Your task to perform on an android device: change your default location settings in chrome Image 0: 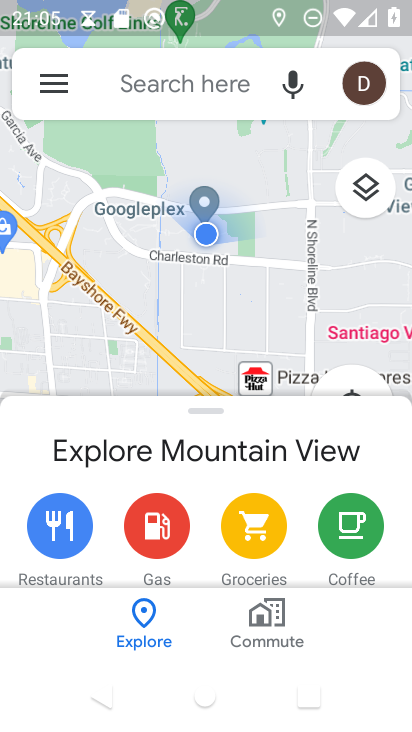
Step 0: press home button
Your task to perform on an android device: change your default location settings in chrome Image 1: 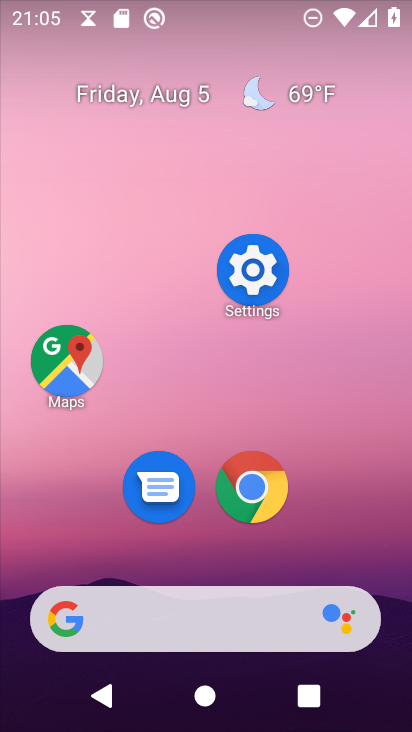
Step 1: click (252, 490)
Your task to perform on an android device: change your default location settings in chrome Image 2: 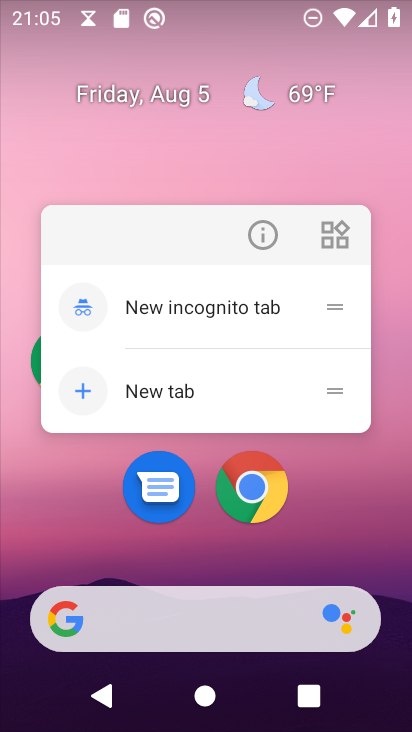
Step 2: click (247, 497)
Your task to perform on an android device: change your default location settings in chrome Image 3: 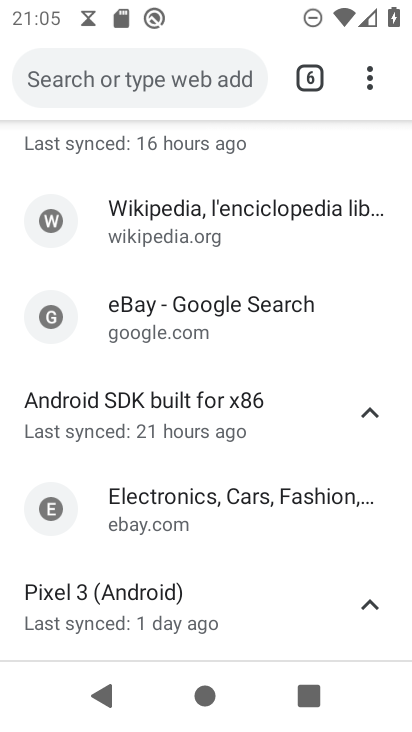
Step 3: drag from (371, 75) to (142, 539)
Your task to perform on an android device: change your default location settings in chrome Image 4: 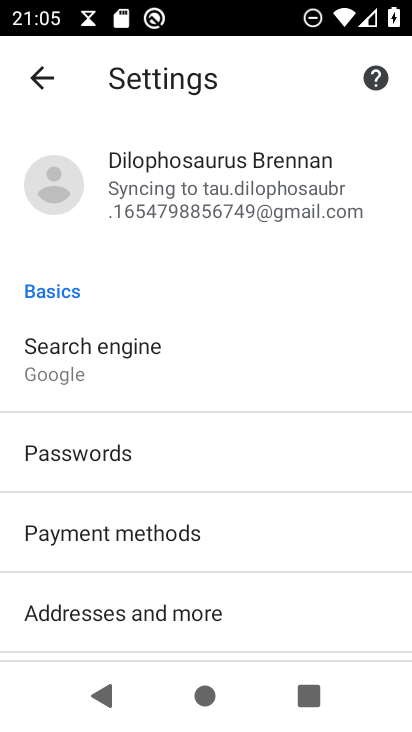
Step 4: drag from (136, 559) to (257, 131)
Your task to perform on an android device: change your default location settings in chrome Image 5: 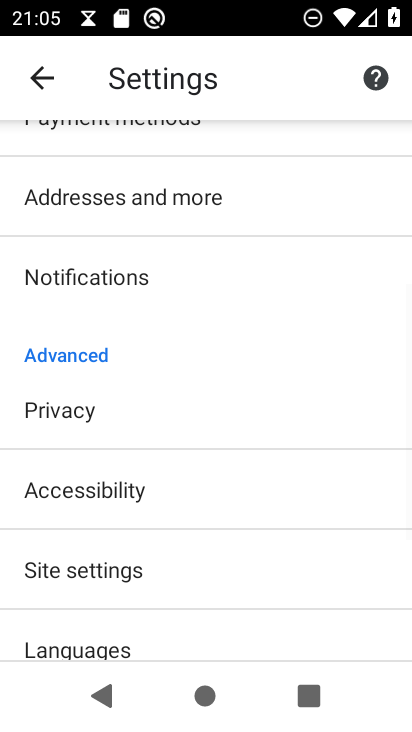
Step 5: click (123, 561)
Your task to perform on an android device: change your default location settings in chrome Image 6: 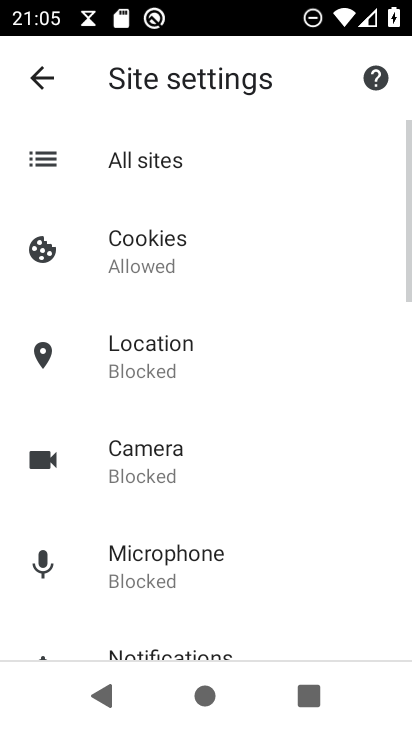
Step 6: click (163, 358)
Your task to perform on an android device: change your default location settings in chrome Image 7: 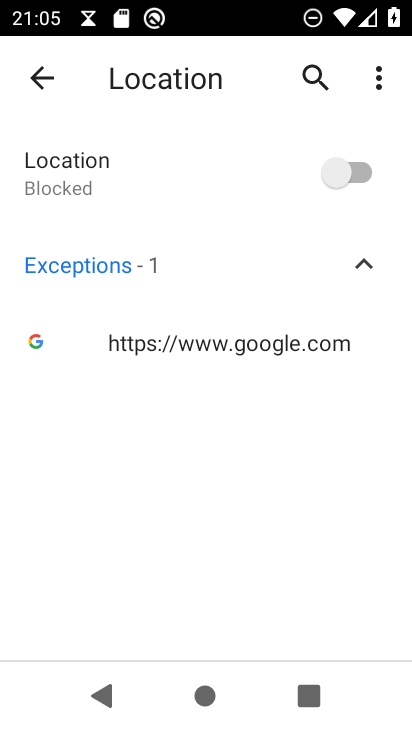
Step 7: click (354, 174)
Your task to perform on an android device: change your default location settings in chrome Image 8: 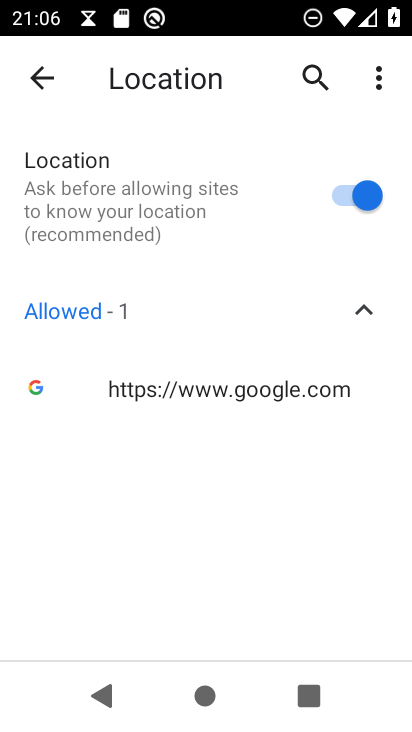
Step 8: task complete